Your task to perform on an android device: open app "Adobe Express: Graphic Design" (install if not already installed) Image 0: 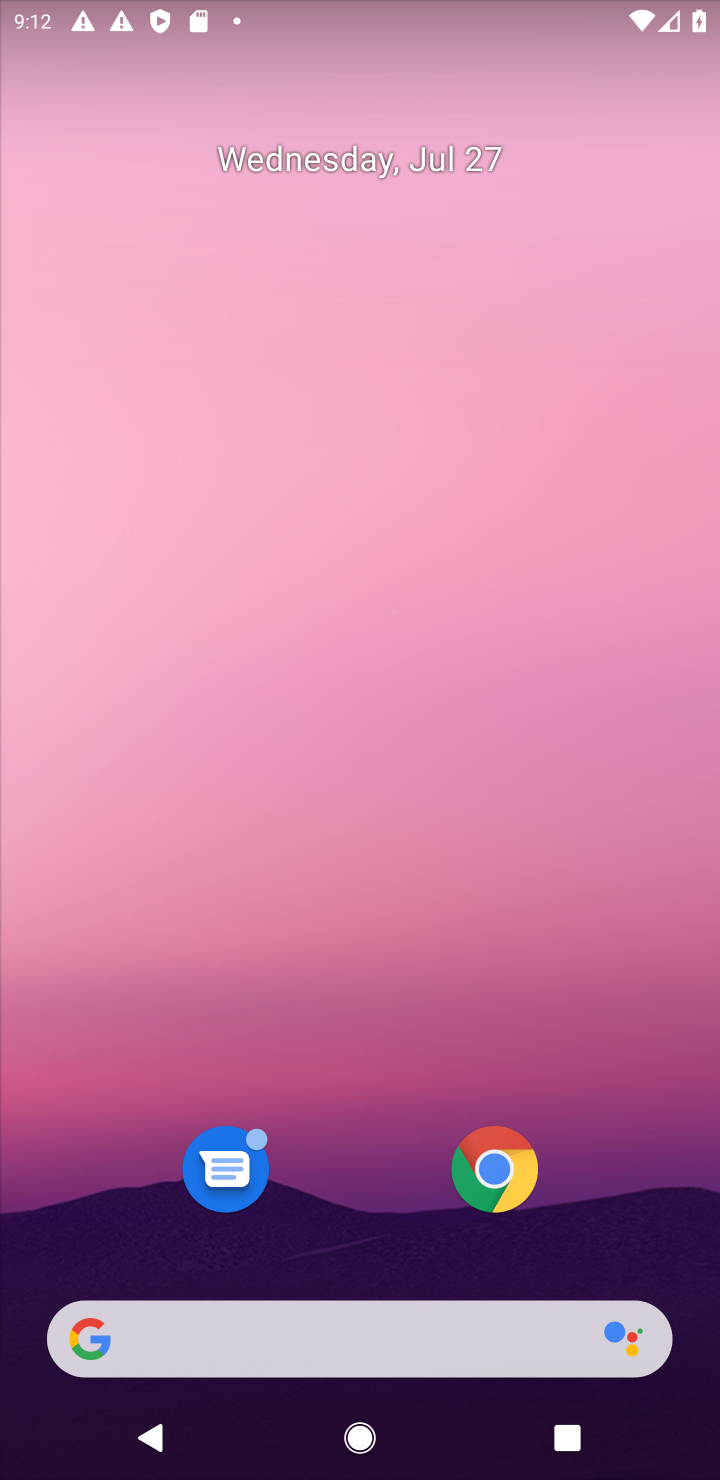
Step 0: drag from (334, 17) to (153, 976)
Your task to perform on an android device: open app "Adobe Express: Graphic Design" (install if not already installed) Image 1: 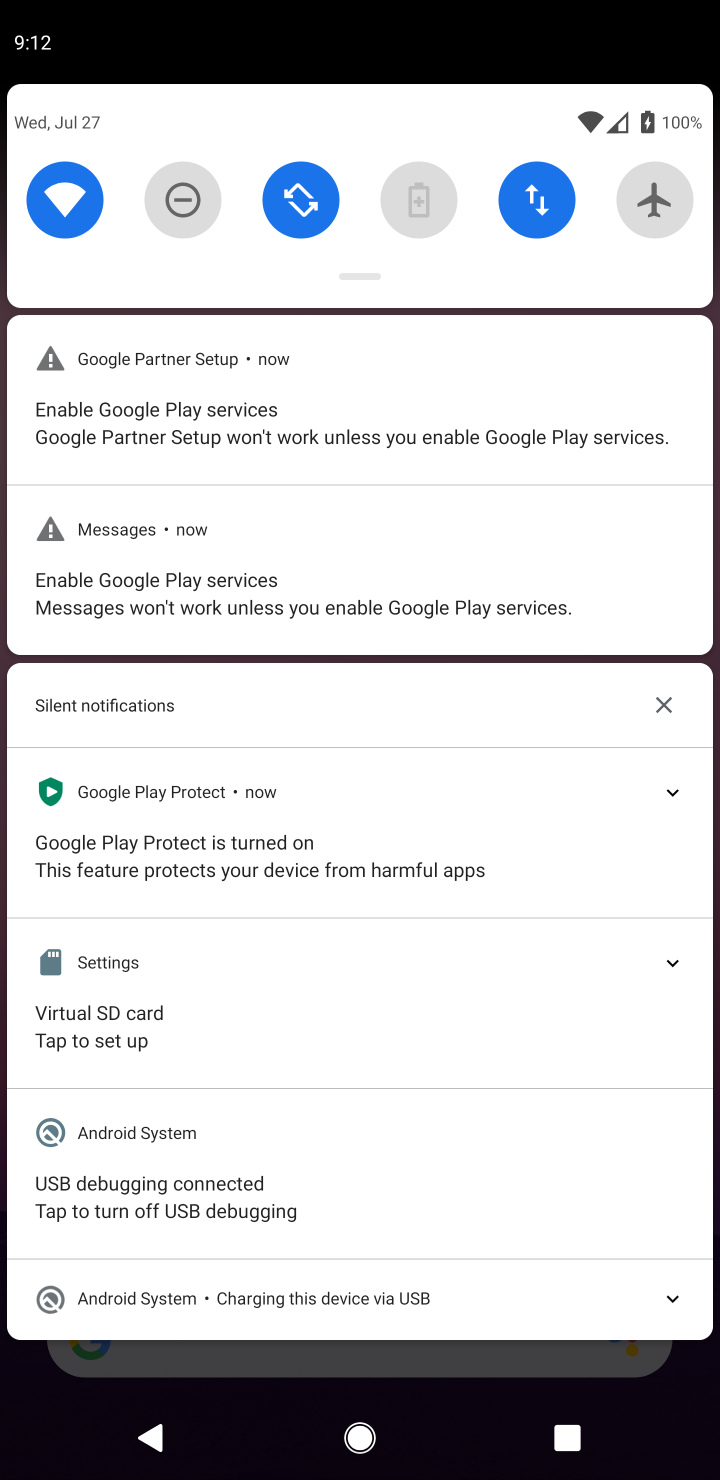
Step 1: drag from (578, 1081) to (644, 5)
Your task to perform on an android device: open app "Adobe Express: Graphic Design" (install if not already installed) Image 2: 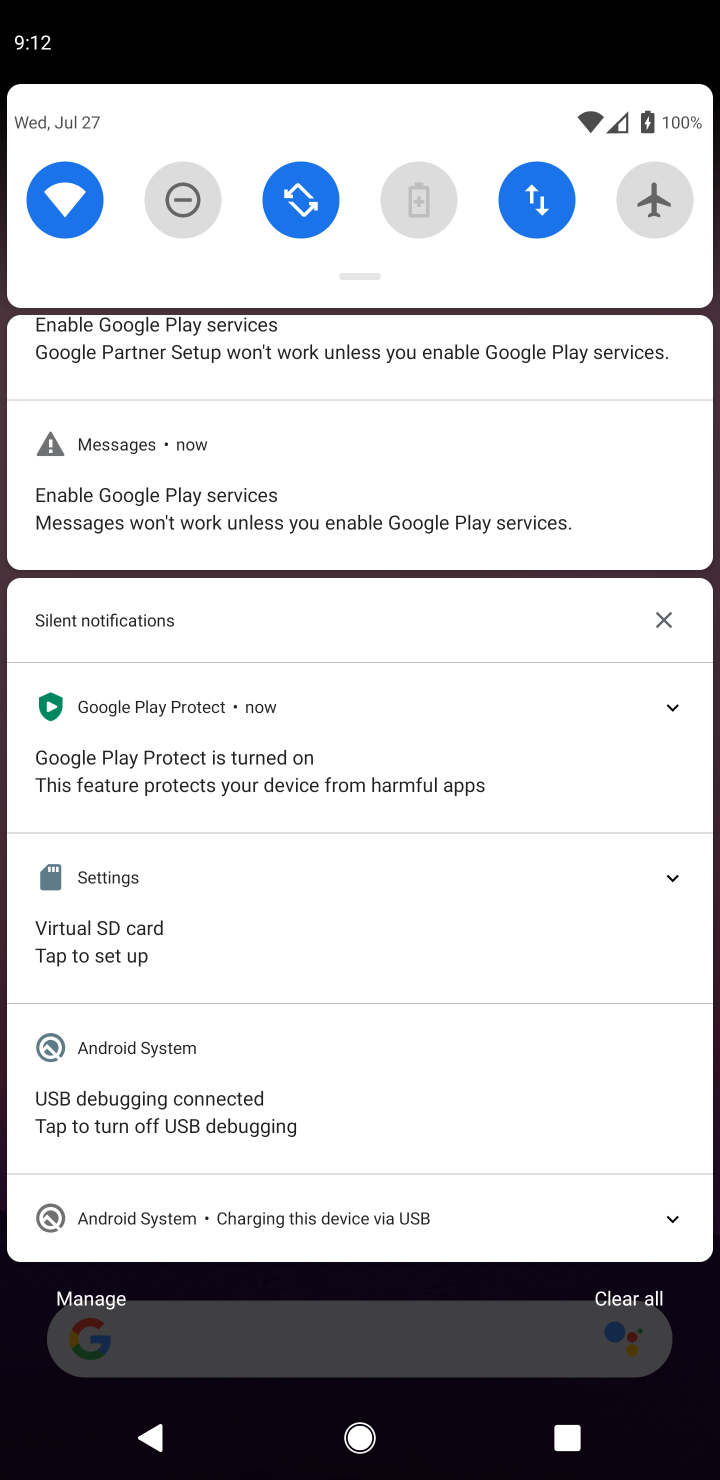
Step 2: press home button
Your task to perform on an android device: open app "Adobe Express: Graphic Design" (install if not already installed) Image 3: 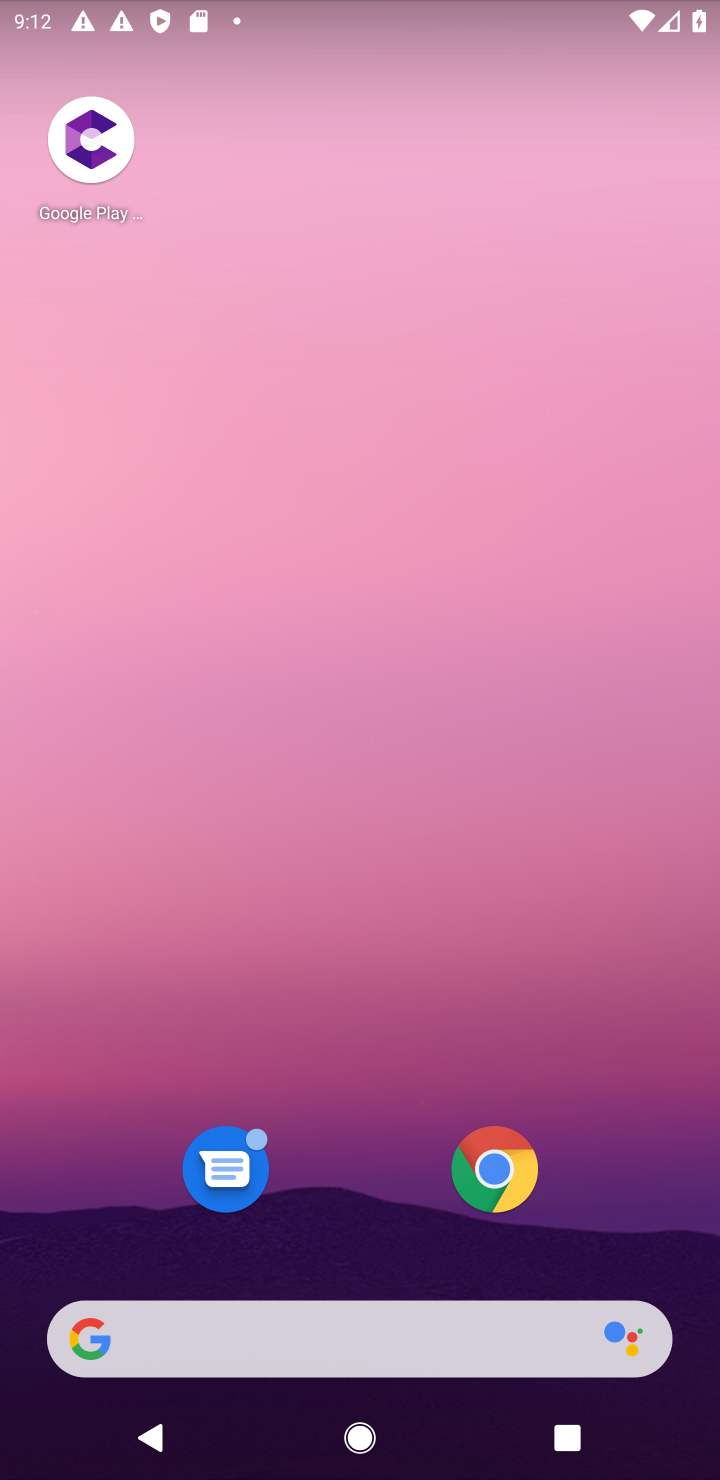
Step 3: drag from (628, 1119) to (716, 155)
Your task to perform on an android device: open app "Adobe Express: Graphic Design" (install if not already installed) Image 4: 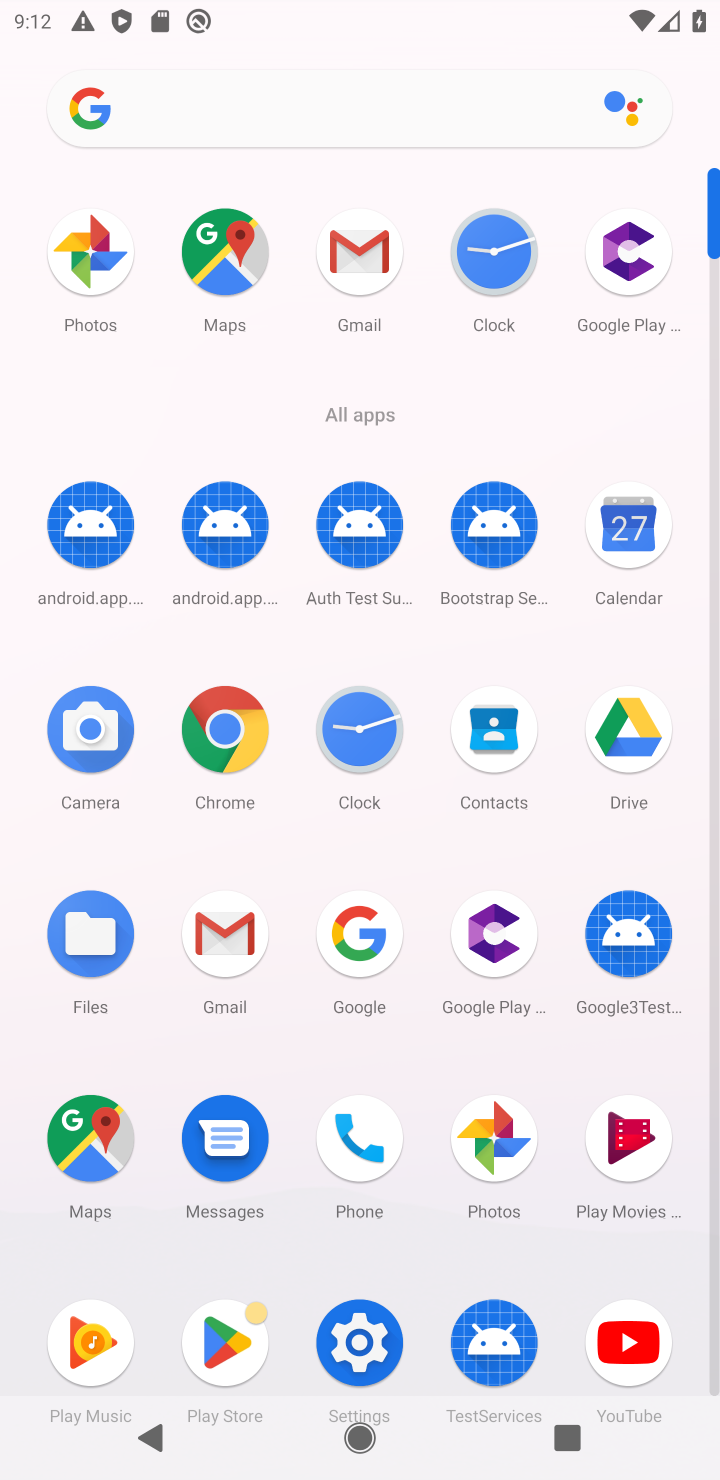
Step 4: click (233, 1337)
Your task to perform on an android device: open app "Adobe Express: Graphic Design" (install if not already installed) Image 5: 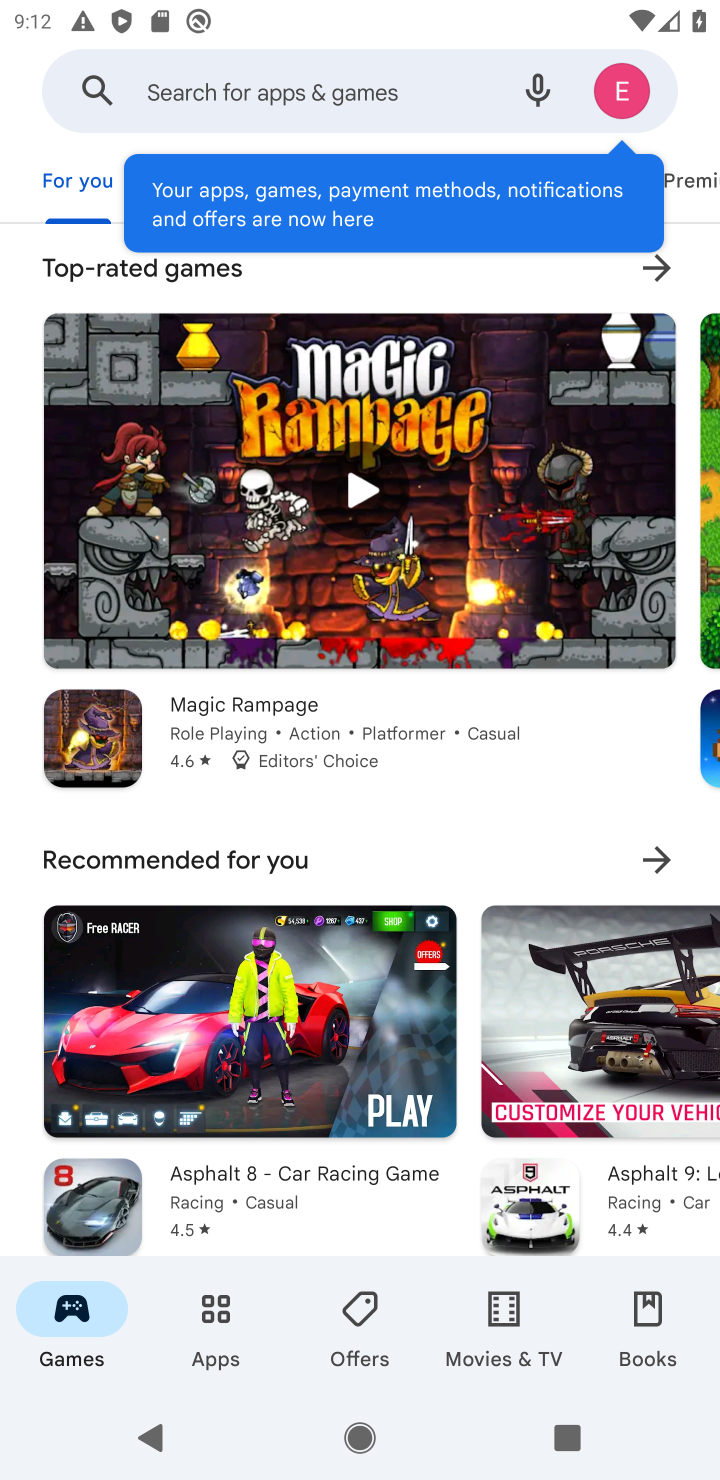
Step 5: click (291, 118)
Your task to perform on an android device: open app "Adobe Express: Graphic Design" (install if not already installed) Image 6: 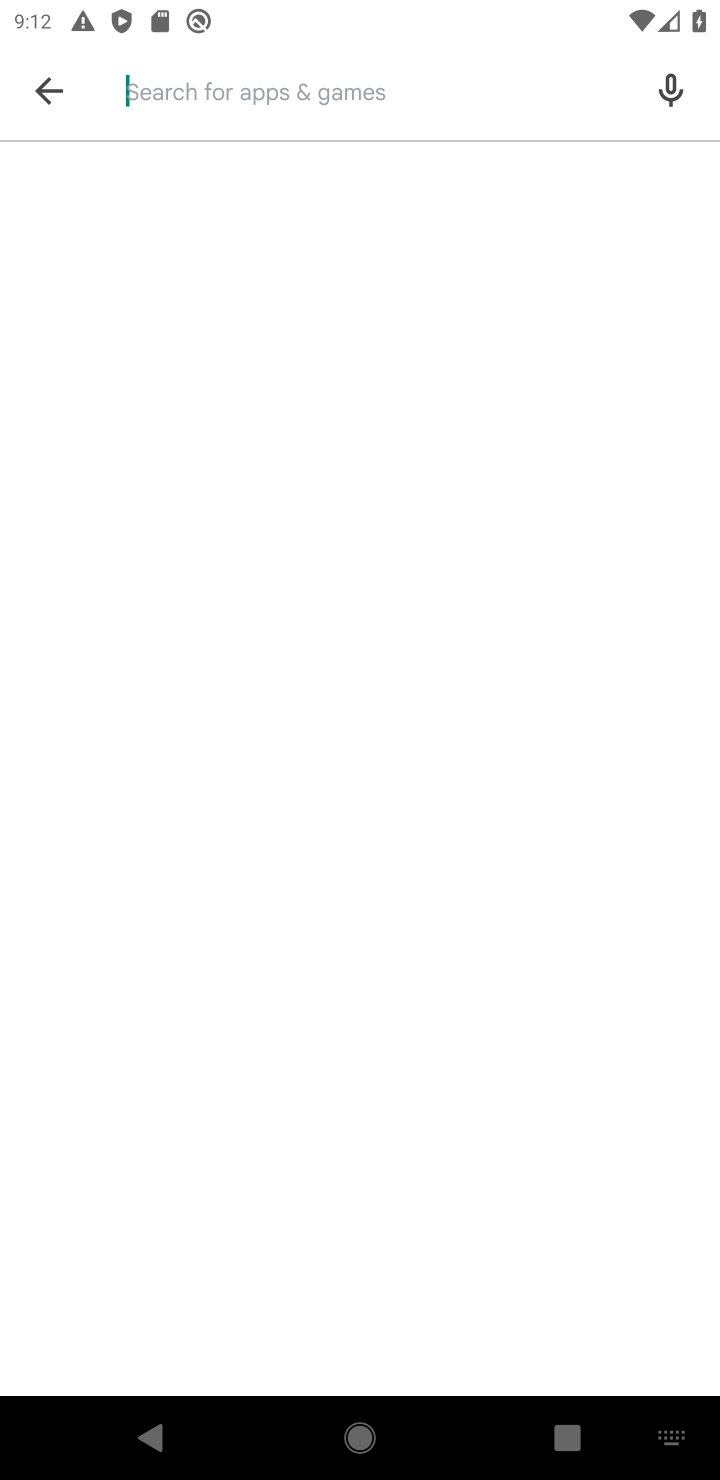
Step 6: click (37, 102)
Your task to perform on an android device: open app "Adobe Express: Graphic Design" (install if not already installed) Image 7: 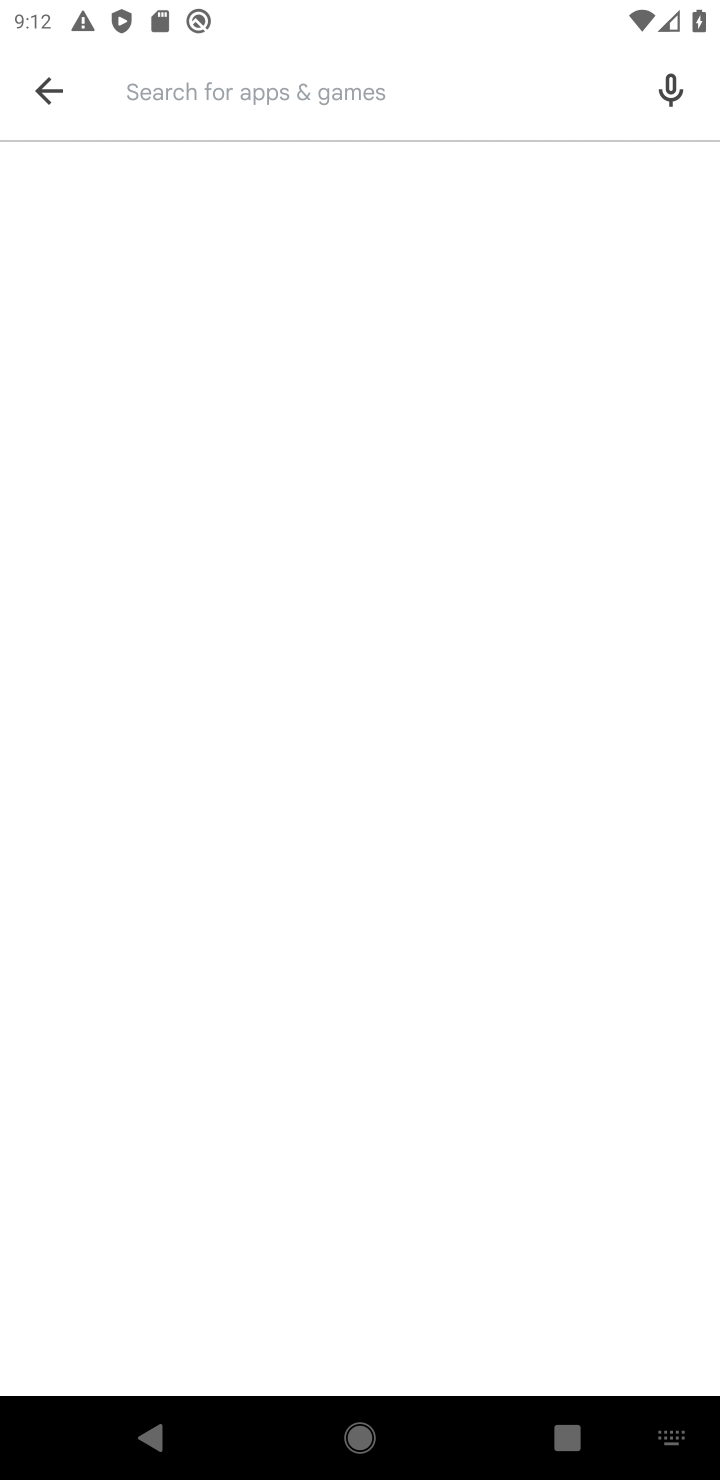
Step 7: click (82, 88)
Your task to perform on an android device: open app "Adobe Express: Graphic Design" (install if not already installed) Image 8: 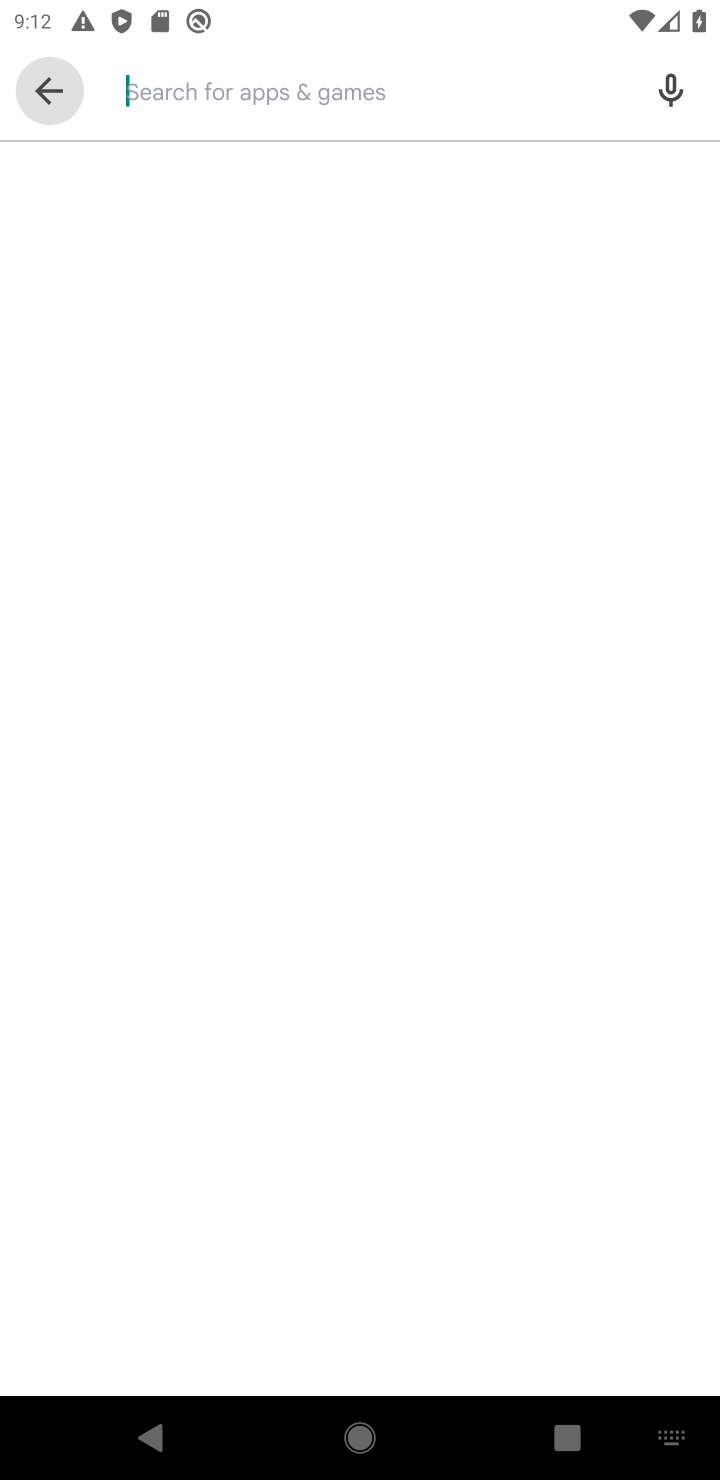
Step 8: click (63, 101)
Your task to perform on an android device: open app "Adobe Express: Graphic Design" (install if not already installed) Image 9: 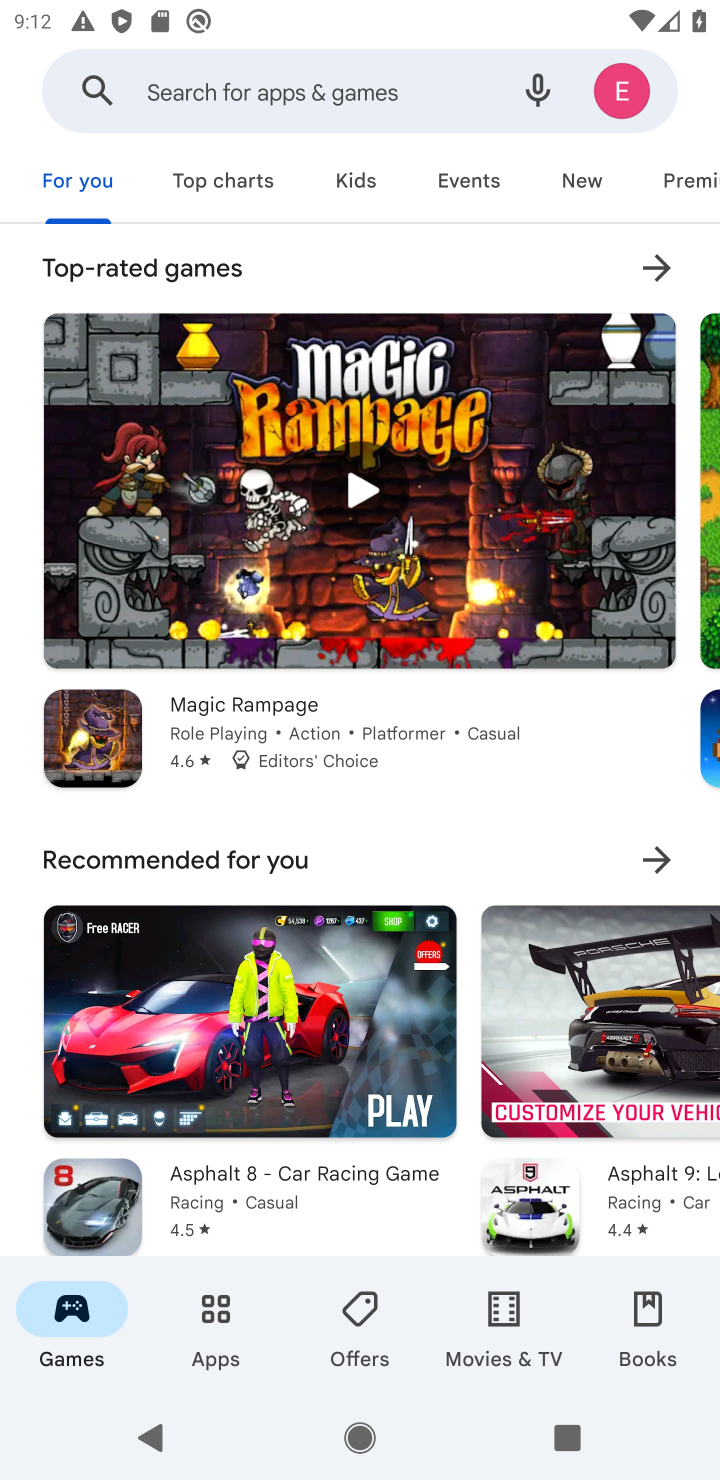
Step 9: press home button
Your task to perform on an android device: open app "Adobe Express: Graphic Design" (install if not already installed) Image 10: 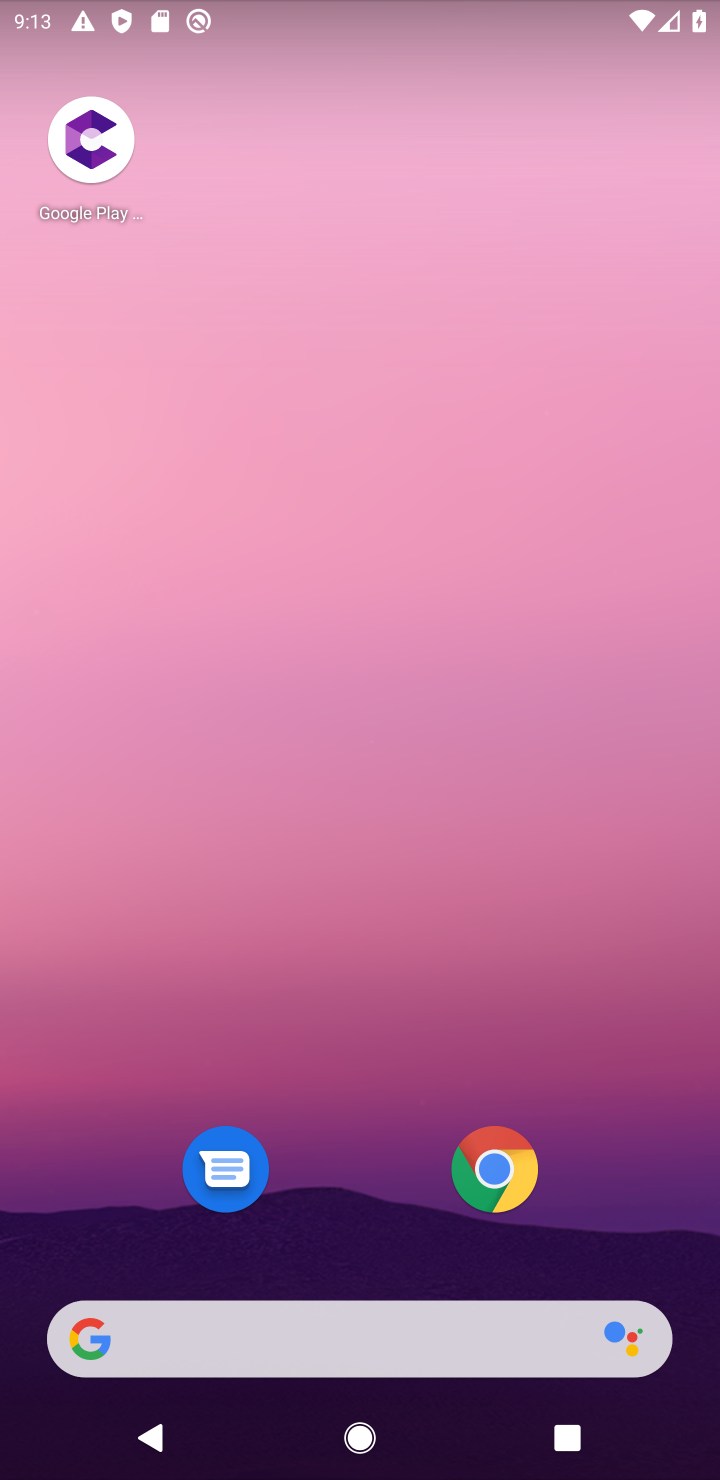
Step 10: drag from (650, 1015) to (540, 9)
Your task to perform on an android device: open app "Adobe Express: Graphic Design" (install if not already installed) Image 11: 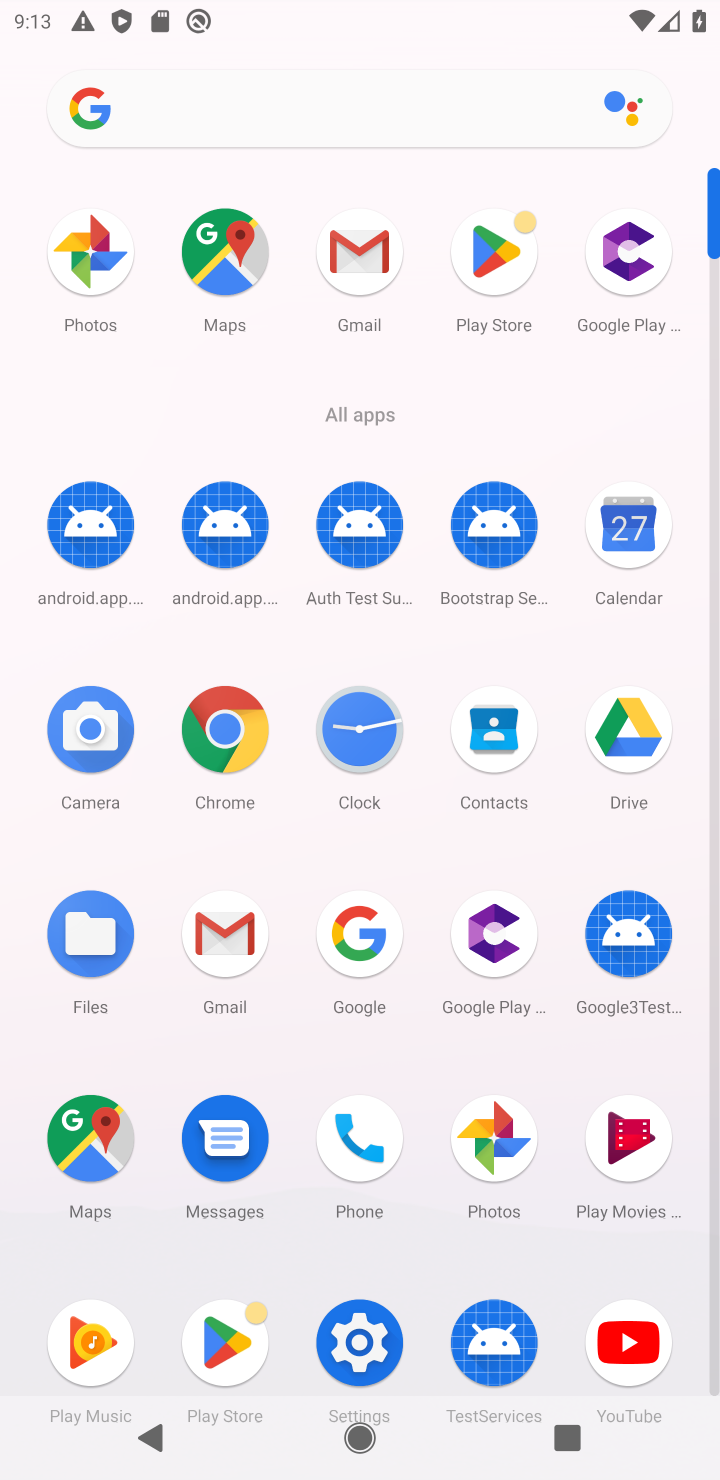
Step 11: click (514, 236)
Your task to perform on an android device: open app "Adobe Express: Graphic Design" (install if not already installed) Image 12: 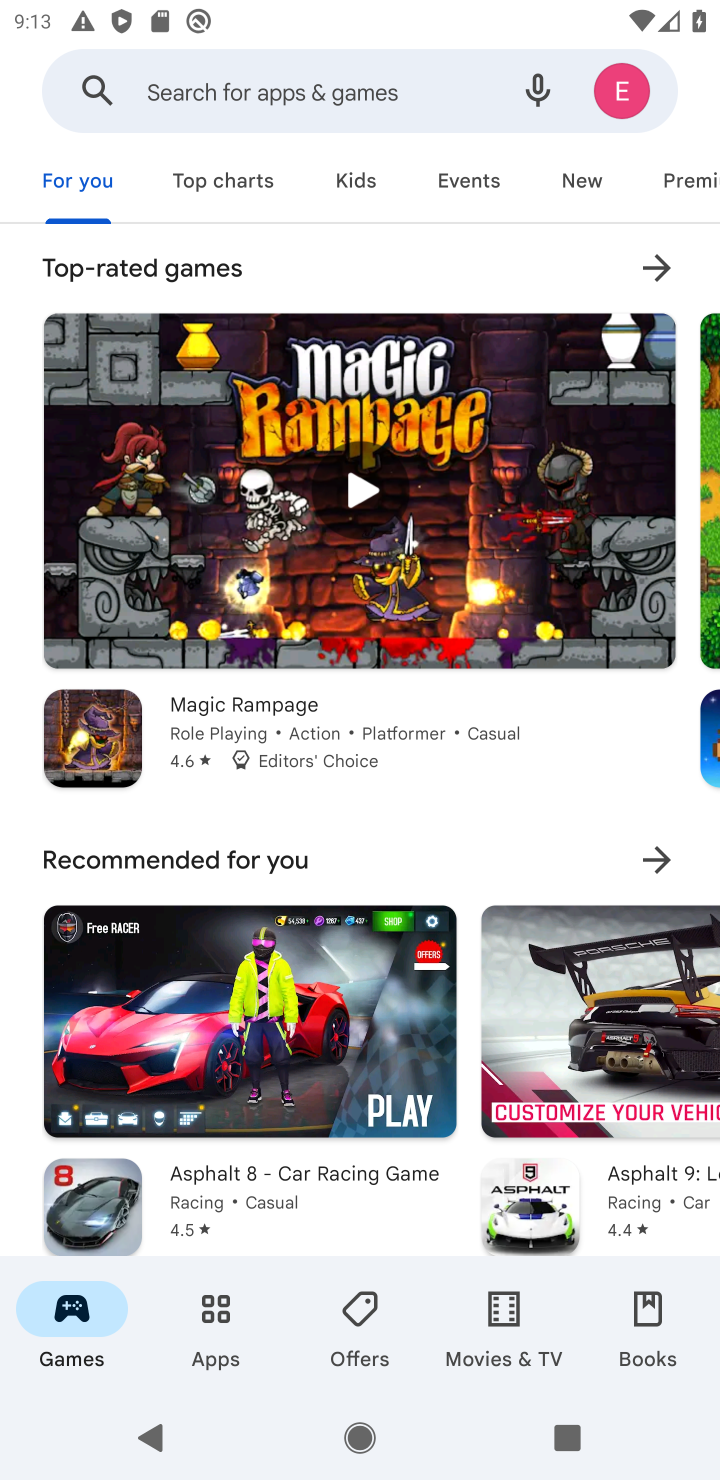
Step 12: click (364, 91)
Your task to perform on an android device: open app "Adobe Express: Graphic Design" (install if not already installed) Image 13: 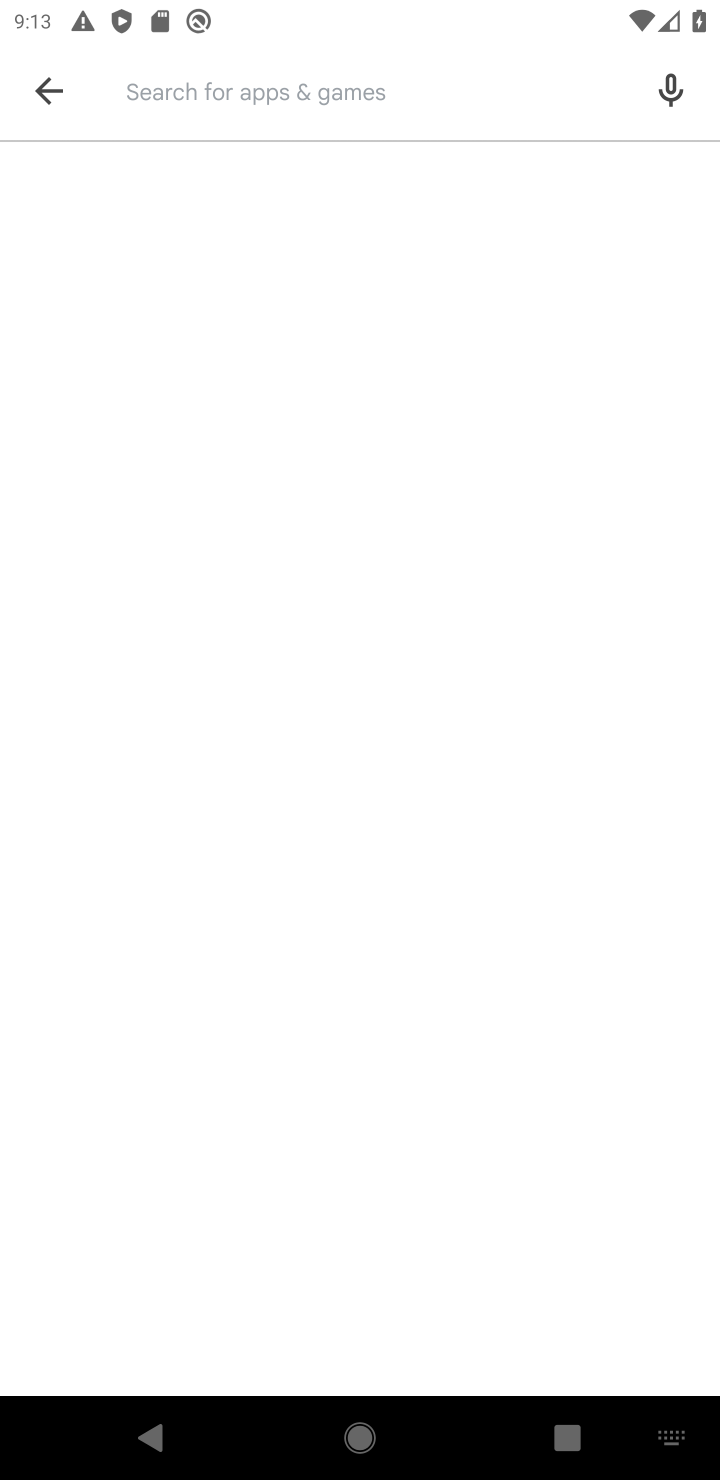
Step 13: type "Adobe Express: Graphic Design"
Your task to perform on an android device: open app "Adobe Express: Graphic Design" (install if not already installed) Image 14: 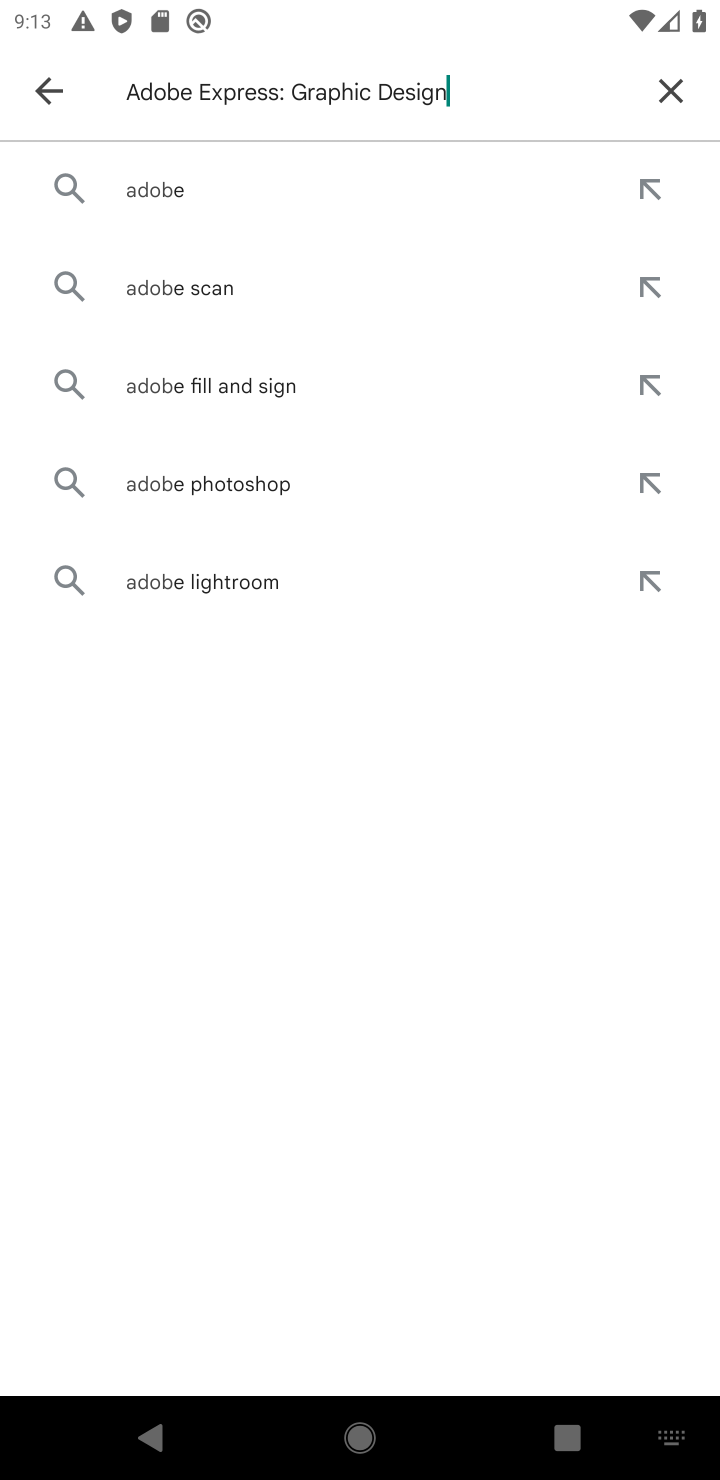
Step 14: press enter
Your task to perform on an android device: open app "Adobe Express: Graphic Design" (install if not already installed) Image 15: 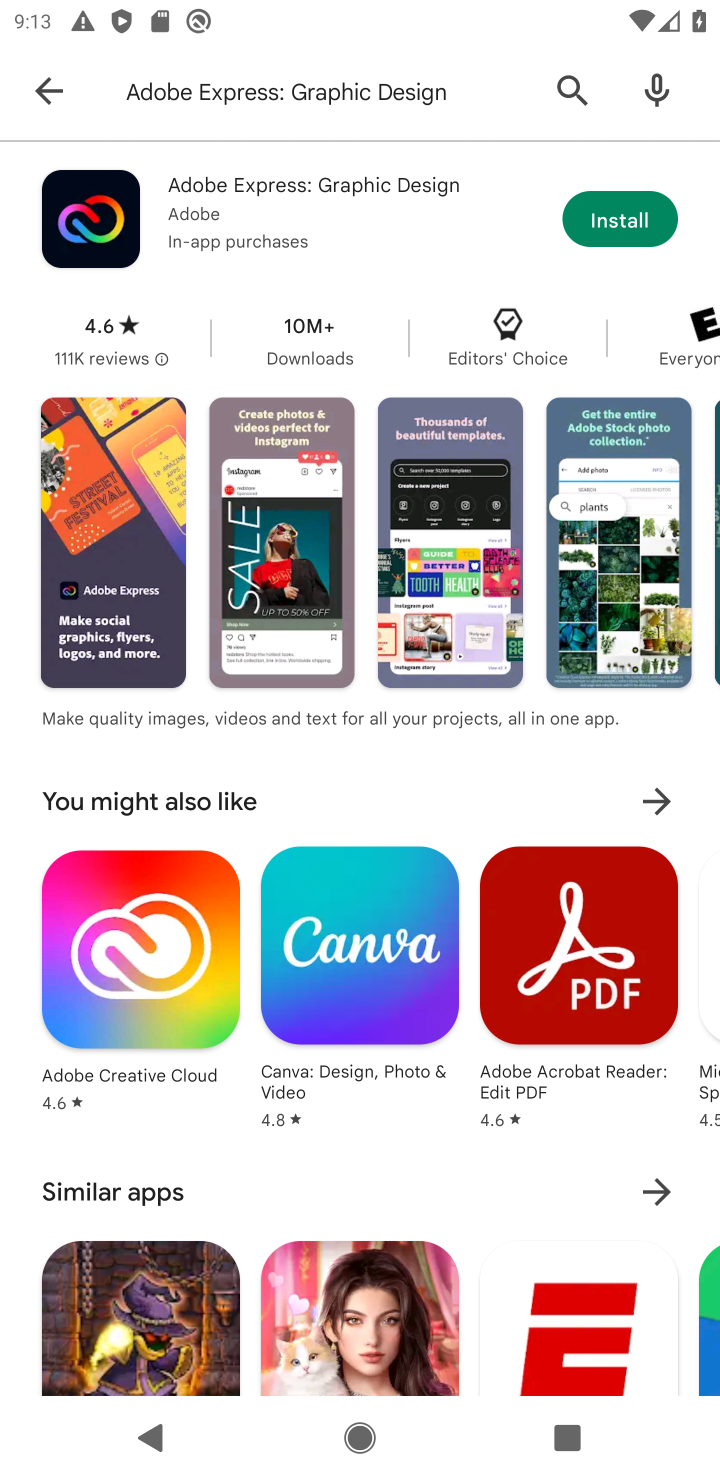
Step 15: click (588, 213)
Your task to perform on an android device: open app "Adobe Express: Graphic Design" (install if not already installed) Image 16: 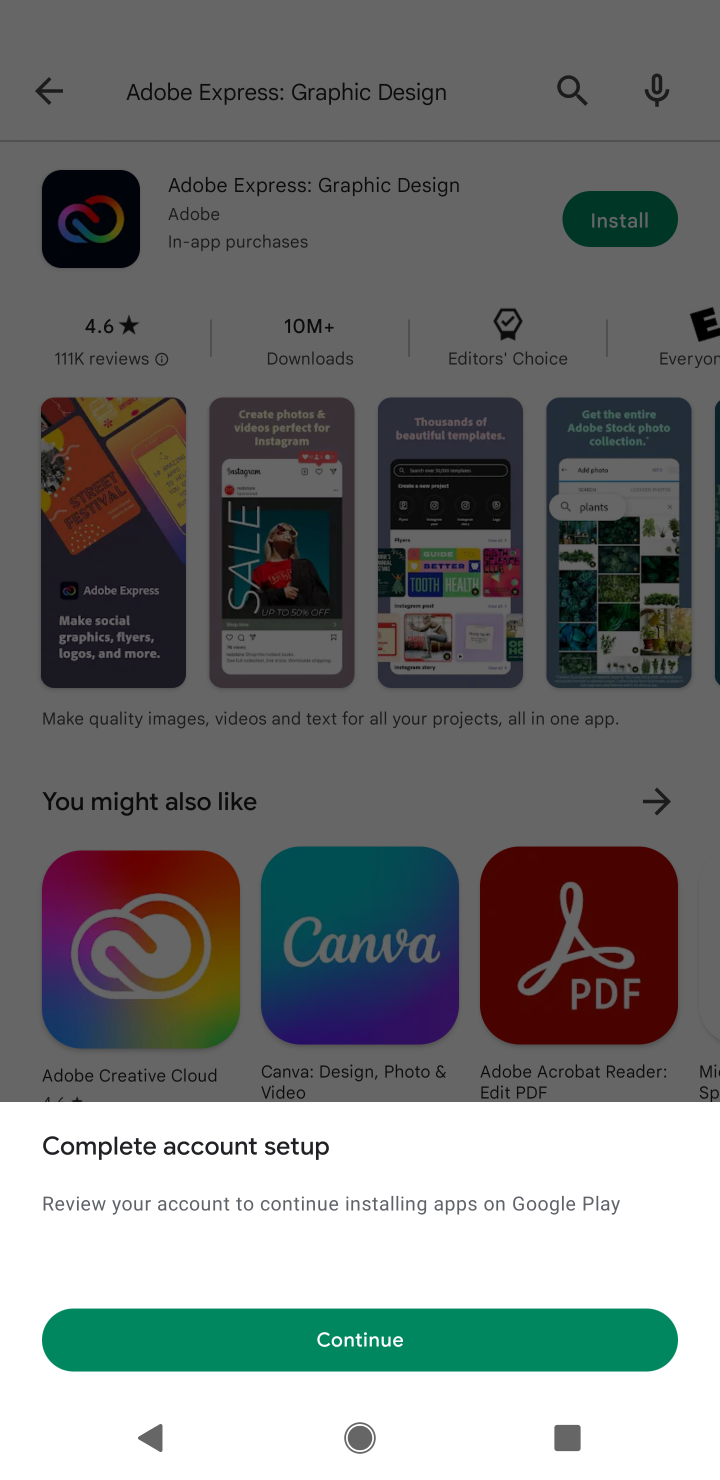
Step 16: click (358, 1353)
Your task to perform on an android device: open app "Adobe Express: Graphic Design" (install if not already installed) Image 17: 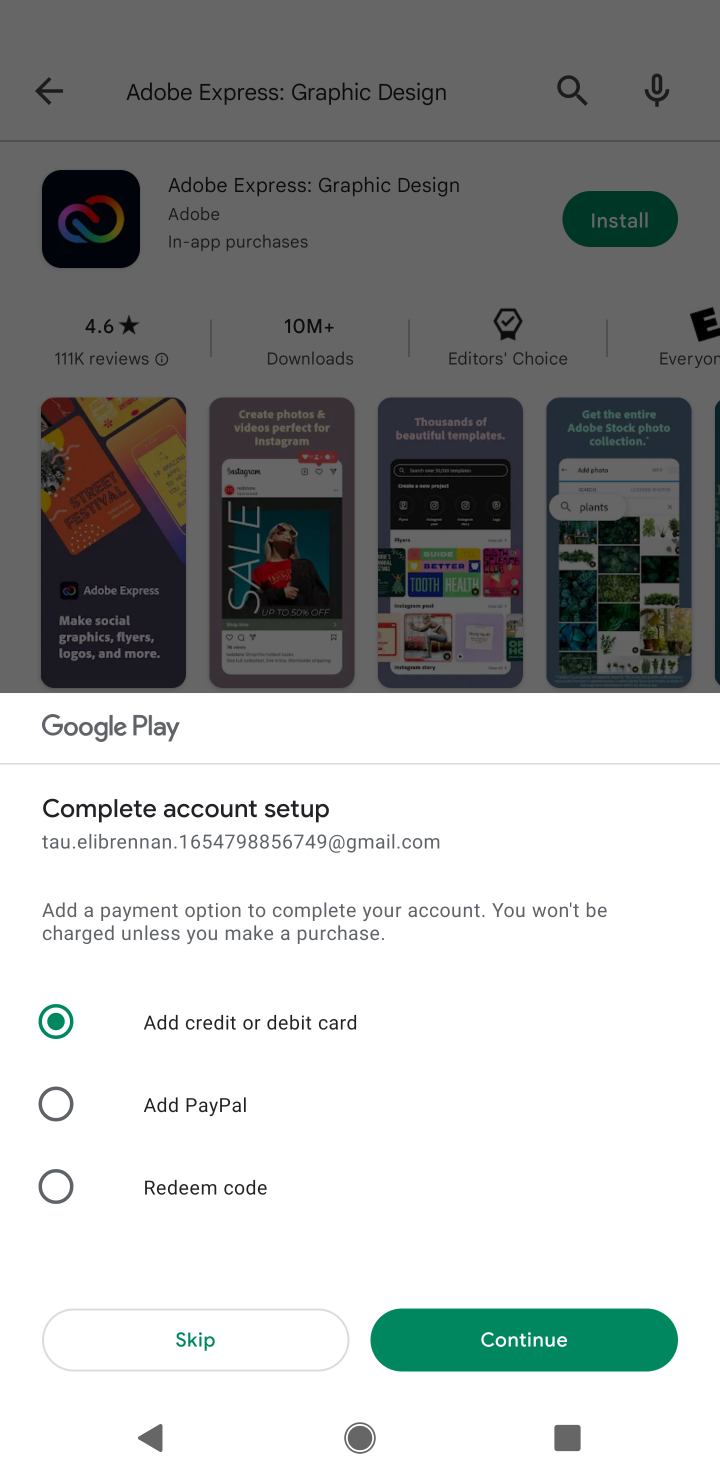
Step 17: click (284, 1330)
Your task to perform on an android device: open app "Adobe Express: Graphic Design" (install if not already installed) Image 18: 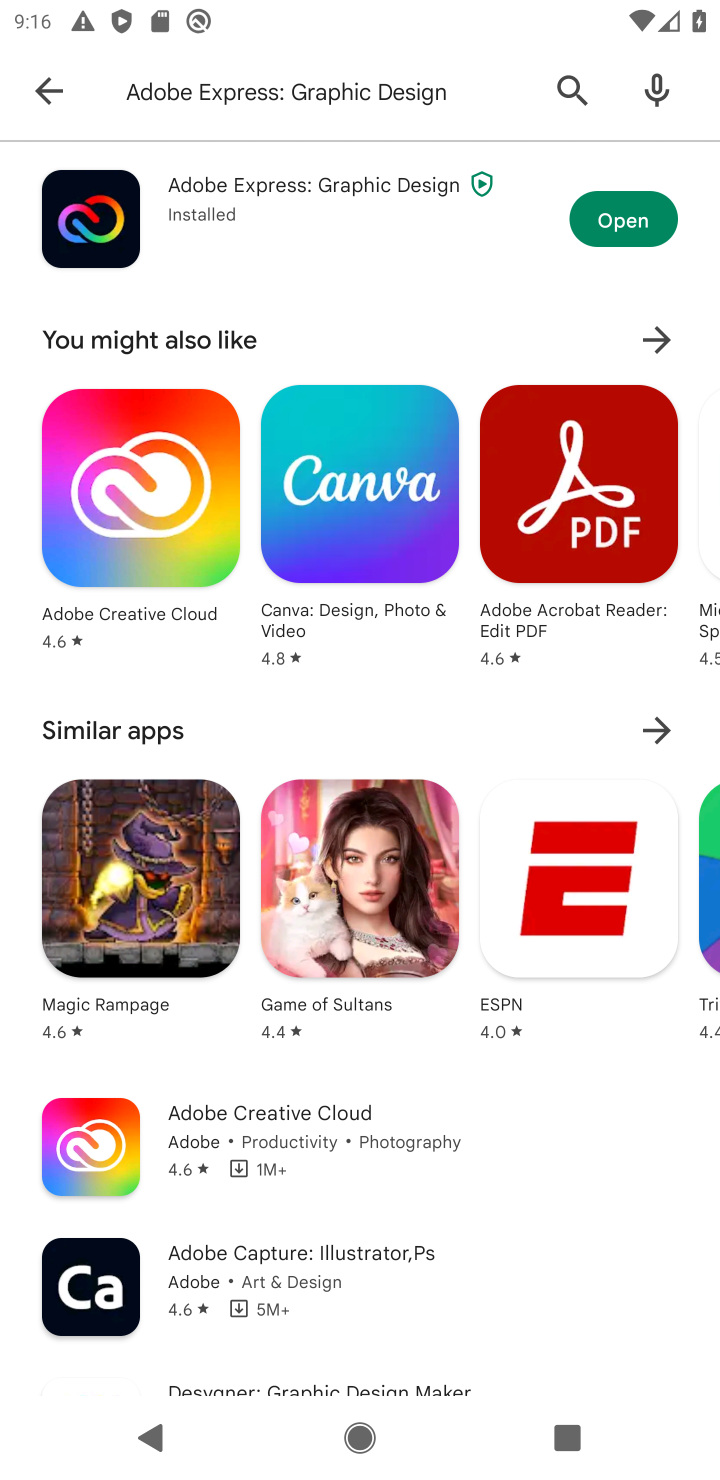
Step 18: click (610, 219)
Your task to perform on an android device: open app "Adobe Express: Graphic Design" (install if not already installed) Image 19: 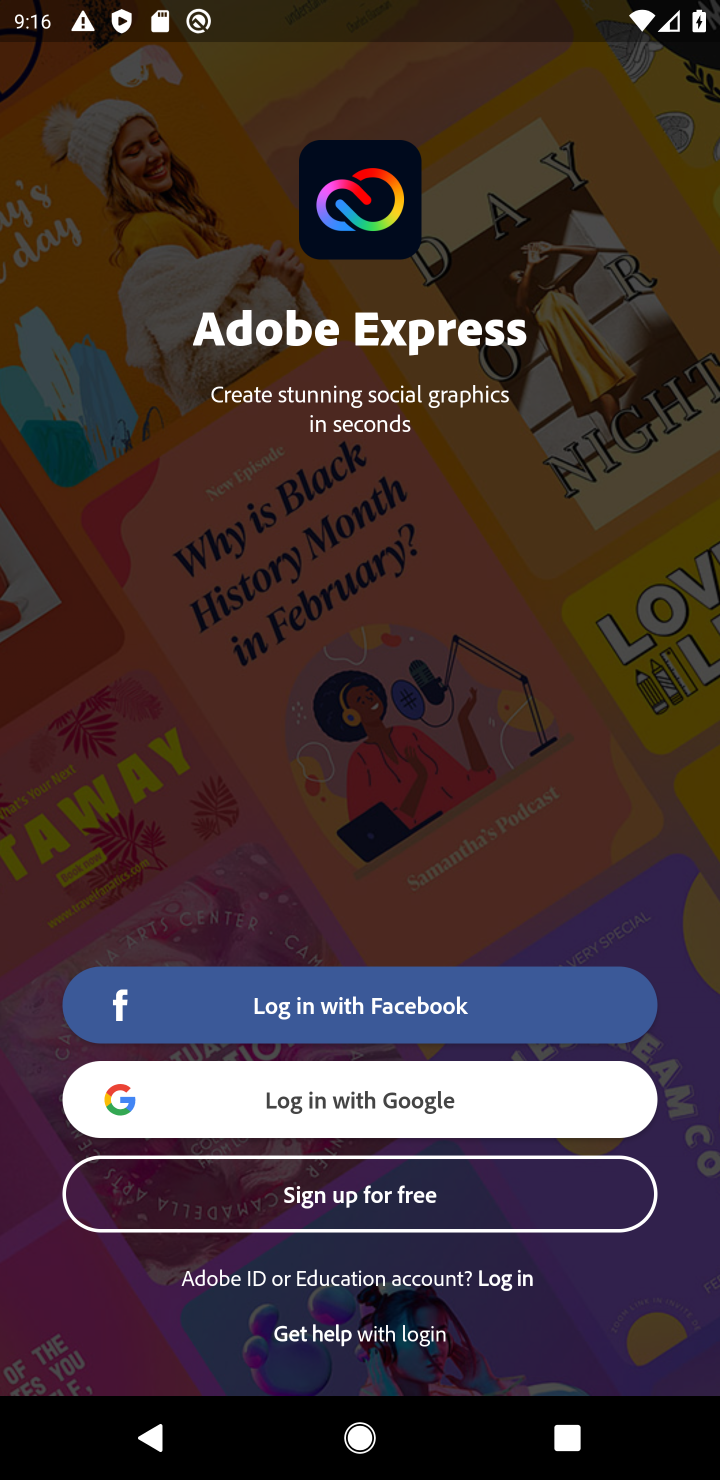
Step 19: task complete